Your task to perform on an android device: Open the calendar and show me this week's events? Image 0: 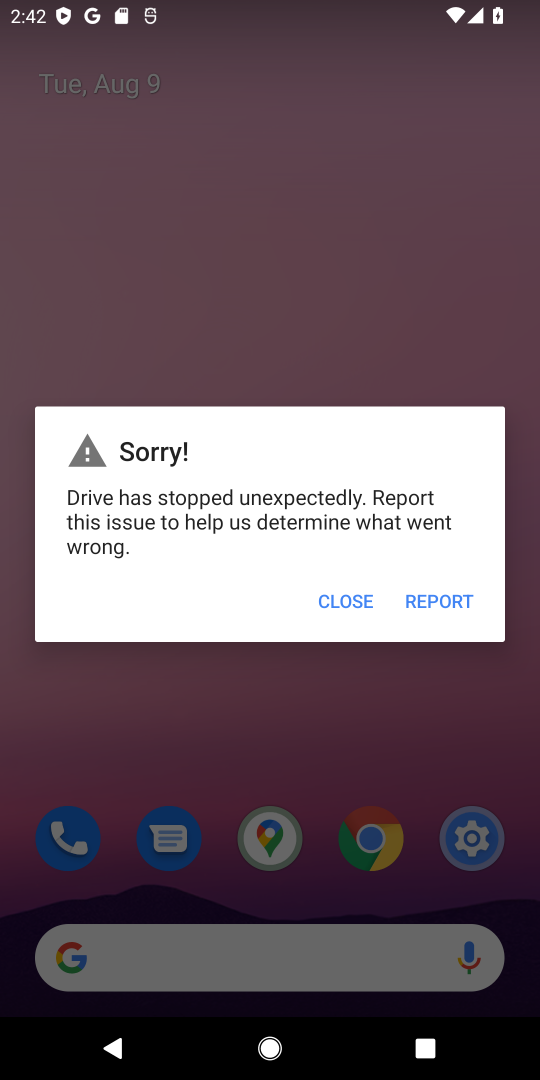
Step 0: press home button
Your task to perform on an android device: Open the calendar and show me this week's events? Image 1: 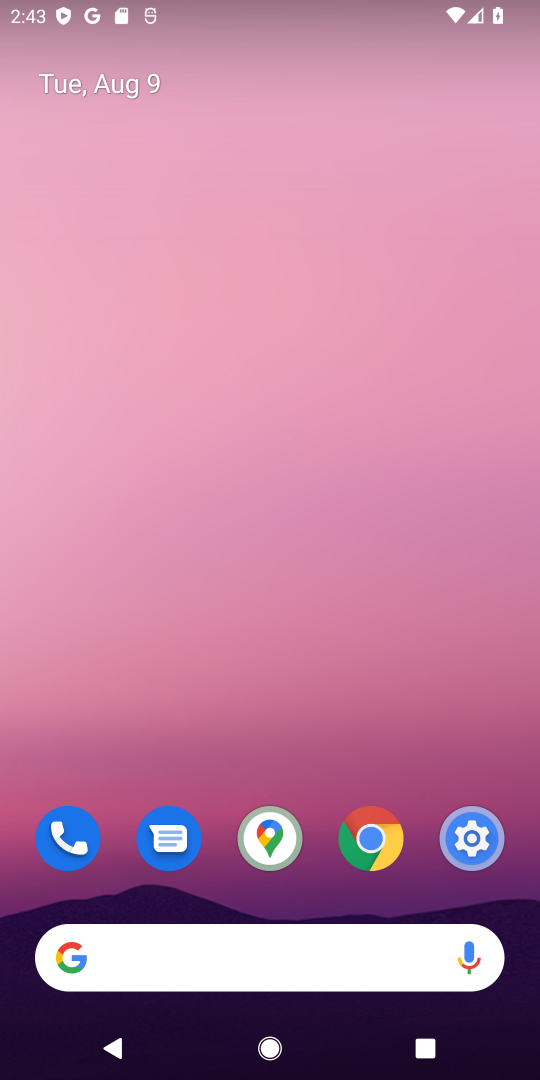
Step 1: drag from (314, 891) to (371, 356)
Your task to perform on an android device: Open the calendar and show me this week's events? Image 2: 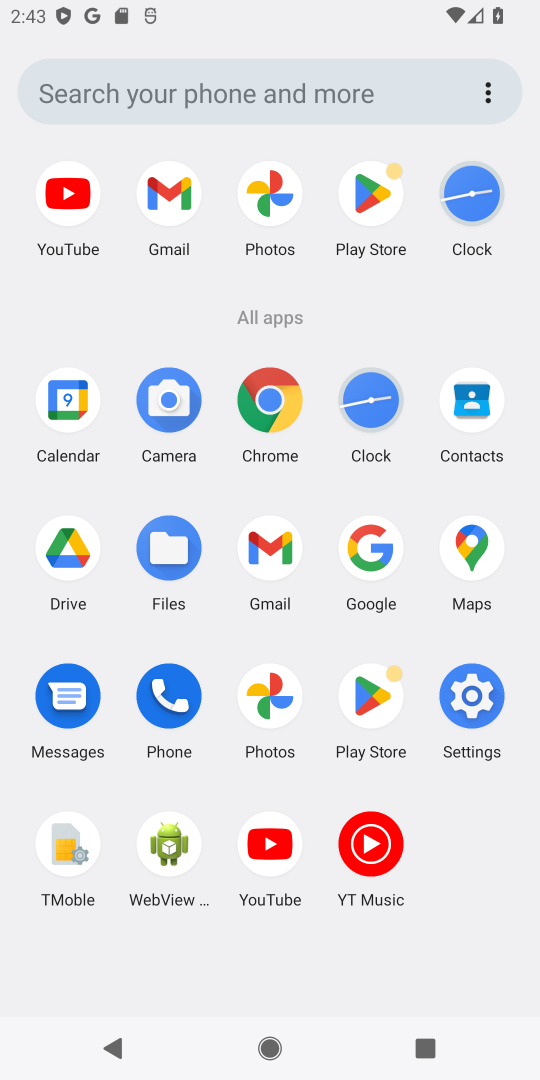
Step 2: click (58, 412)
Your task to perform on an android device: Open the calendar and show me this week's events? Image 3: 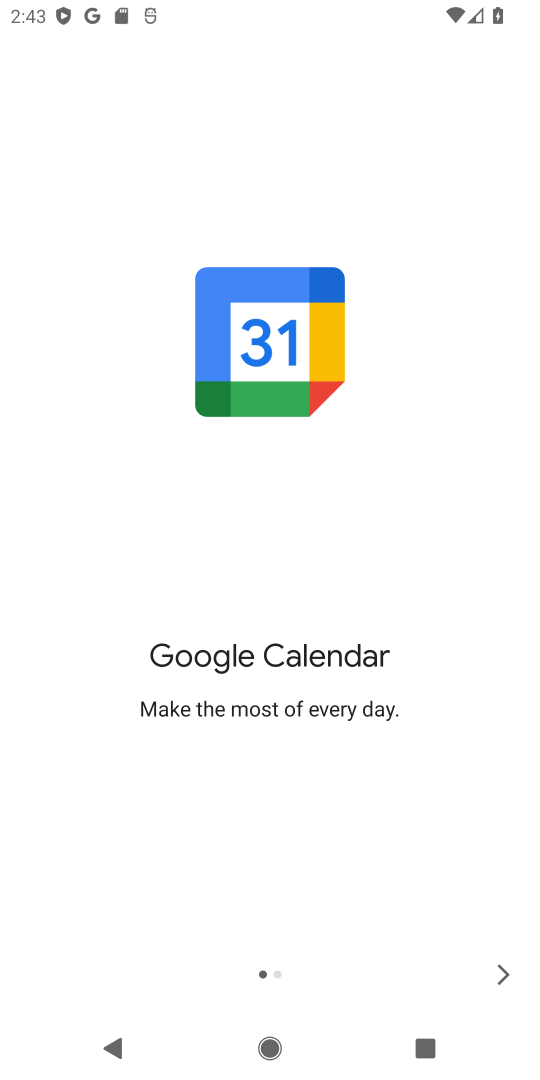
Step 3: click (503, 963)
Your task to perform on an android device: Open the calendar and show me this week's events? Image 4: 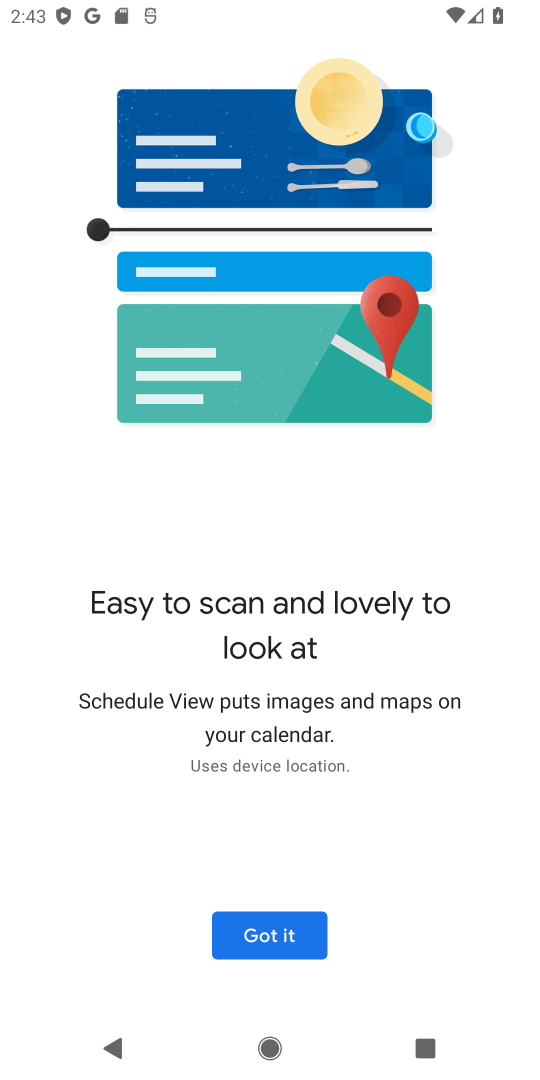
Step 4: click (317, 928)
Your task to perform on an android device: Open the calendar and show me this week's events? Image 5: 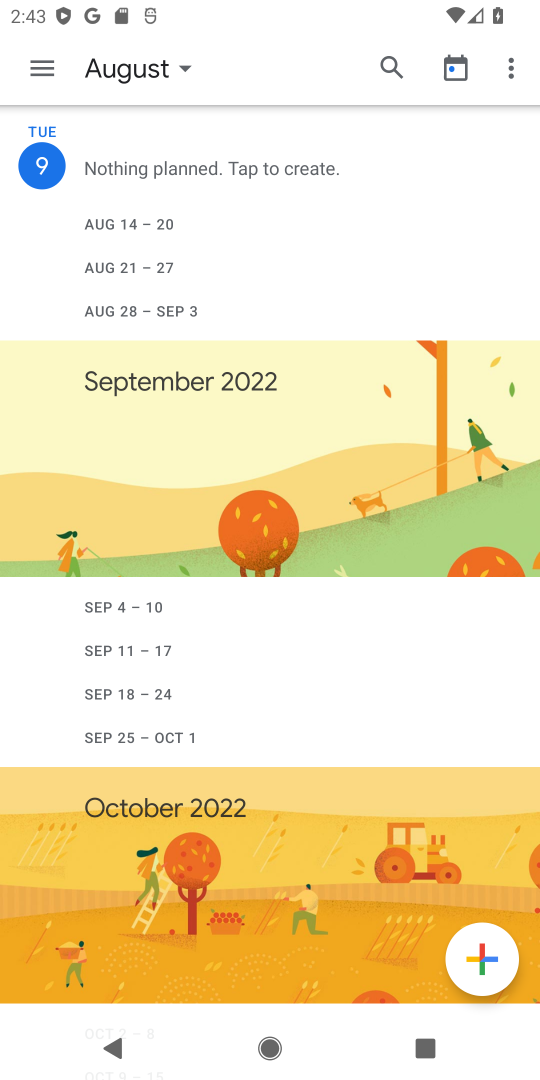
Step 5: click (87, 60)
Your task to perform on an android device: Open the calendar and show me this week's events? Image 6: 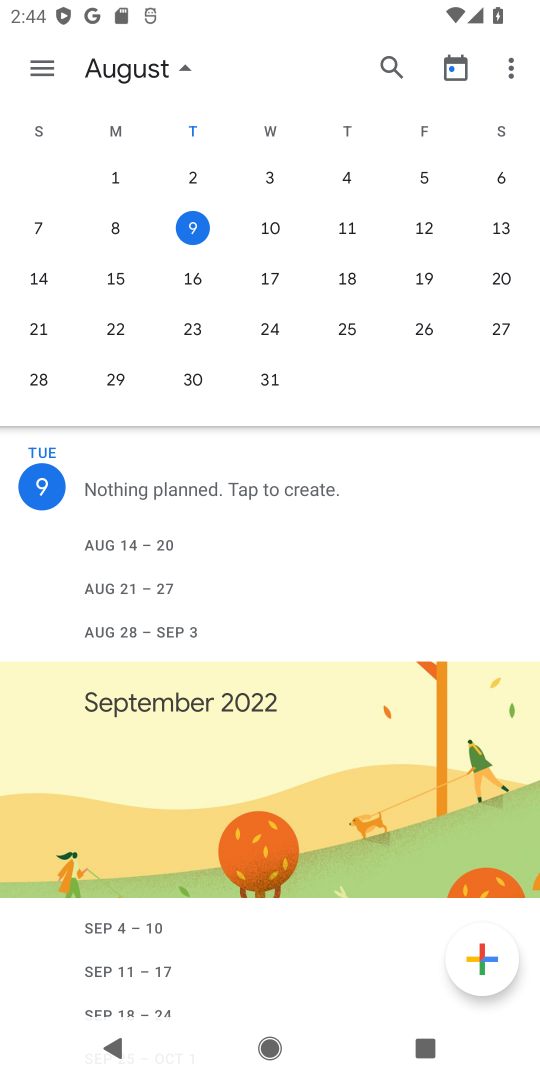
Step 6: drag from (81, 238) to (500, 265)
Your task to perform on an android device: Open the calendar and show me this week's events? Image 7: 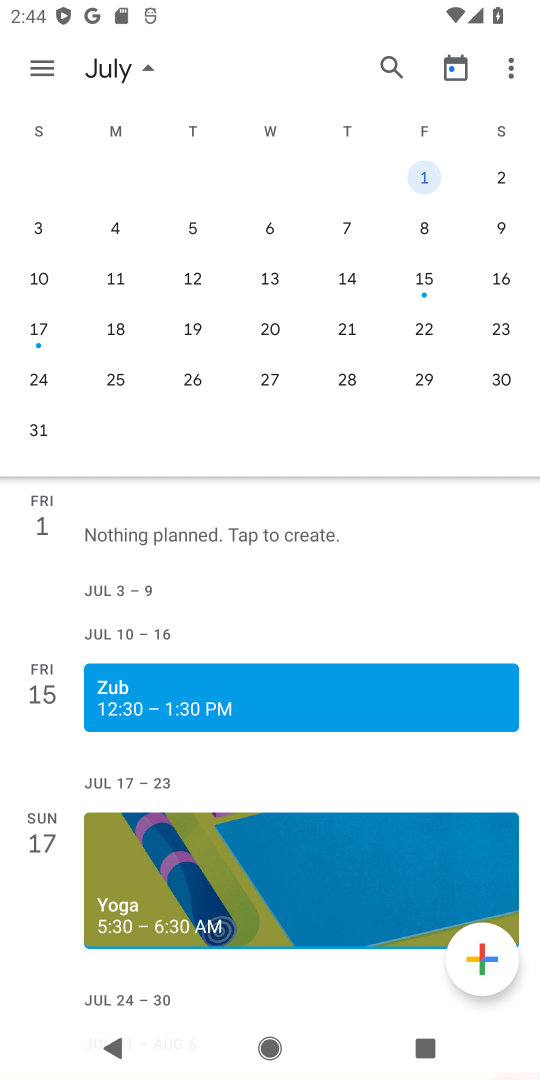
Step 7: drag from (486, 280) to (103, 251)
Your task to perform on an android device: Open the calendar and show me this week's events? Image 8: 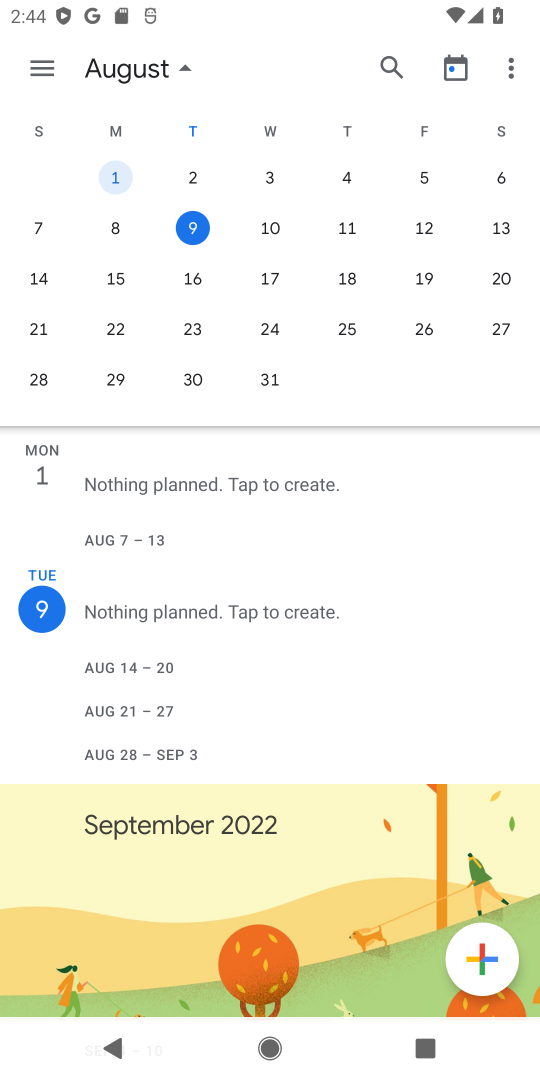
Step 8: click (198, 218)
Your task to perform on an android device: Open the calendar and show me this week's events? Image 9: 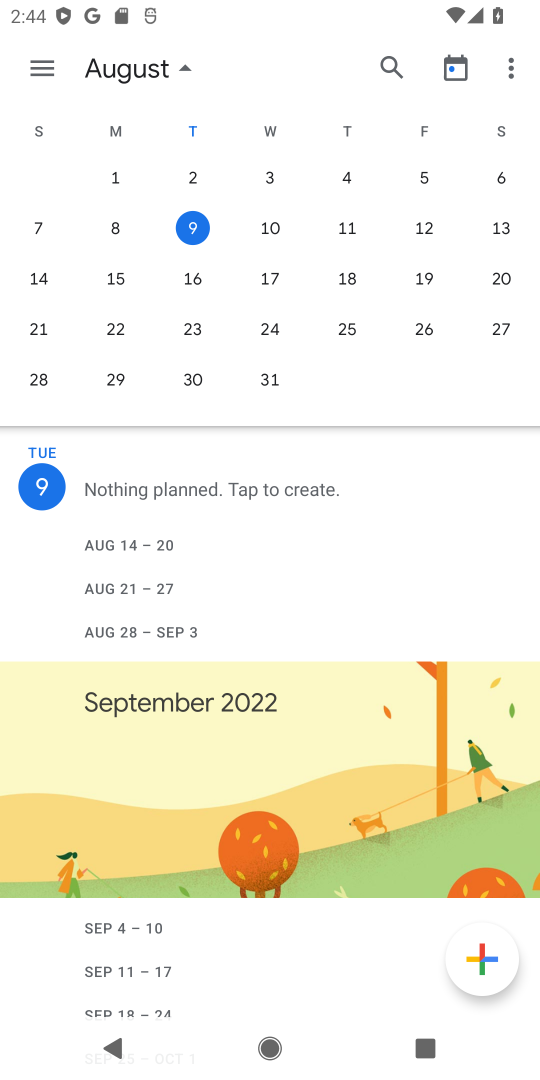
Step 9: click (24, 72)
Your task to perform on an android device: Open the calendar and show me this week's events? Image 10: 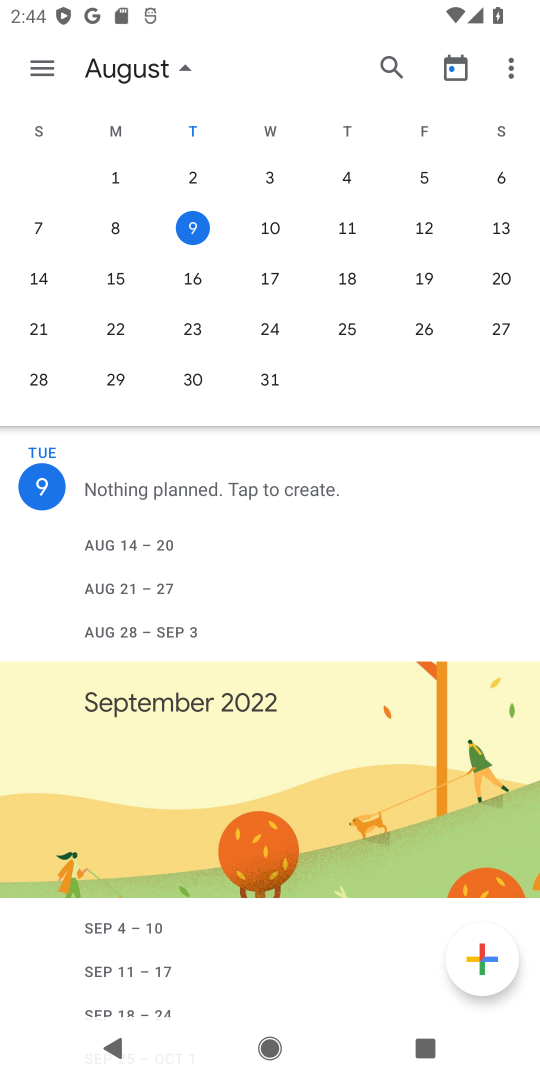
Step 10: click (33, 62)
Your task to perform on an android device: Open the calendar and show me this week's events? Image 11: 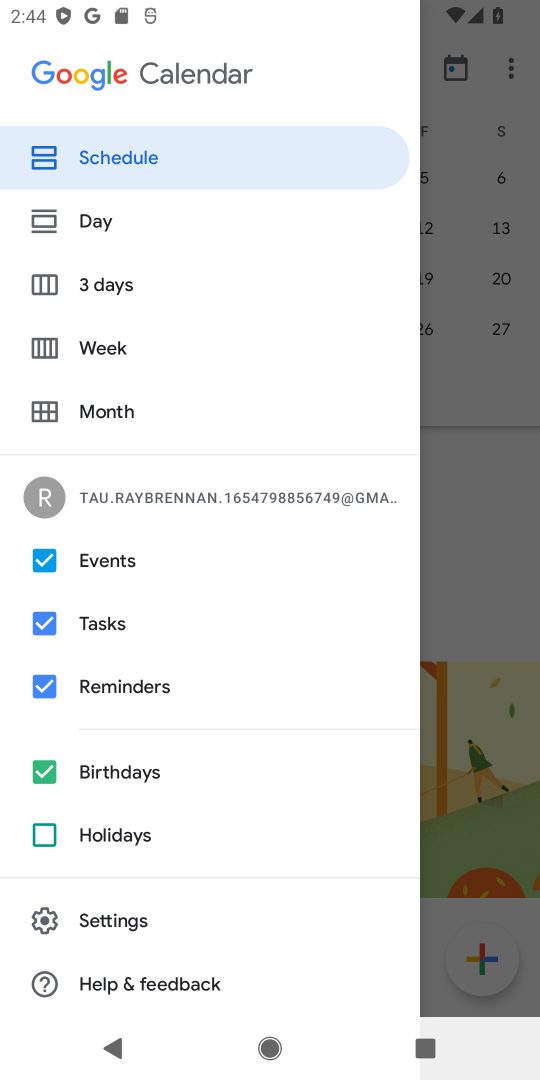
Step 11: click (94, 326)
Your task to perform on an android device: Open the calendar and show me this week's events? Image 12: 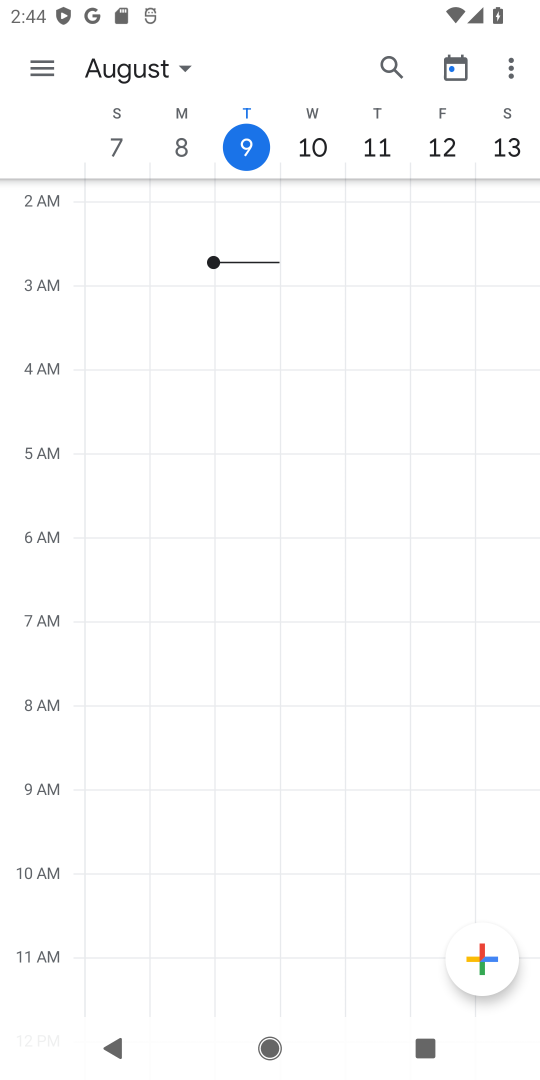
Step 12: task complete